Your task to perform on an android device: Open notification settings Image 0: 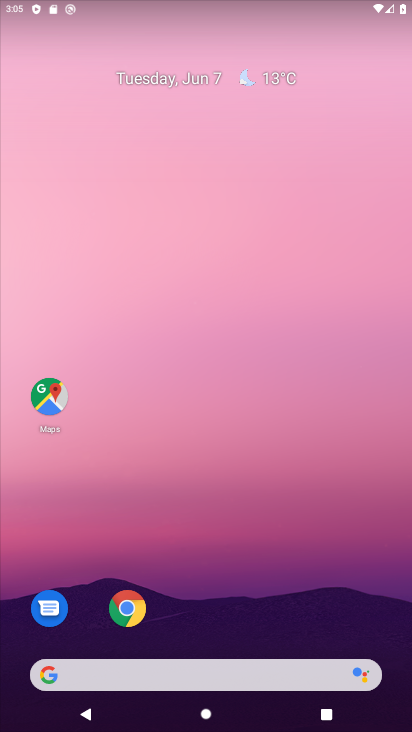
Step 0: drag from (224, 680) to (340, 25)
Your task to perform on an android device: Open notification settings Image 1: 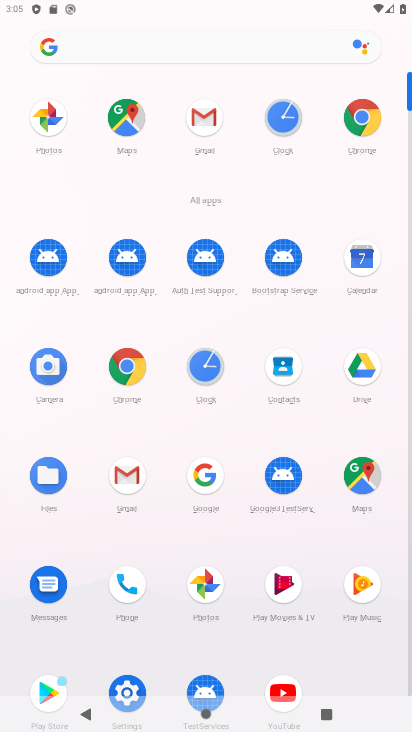
Step 1: drag from (279, 577) to (330, 317)
Your task to perform on an android device: Open notification settings Image 2: 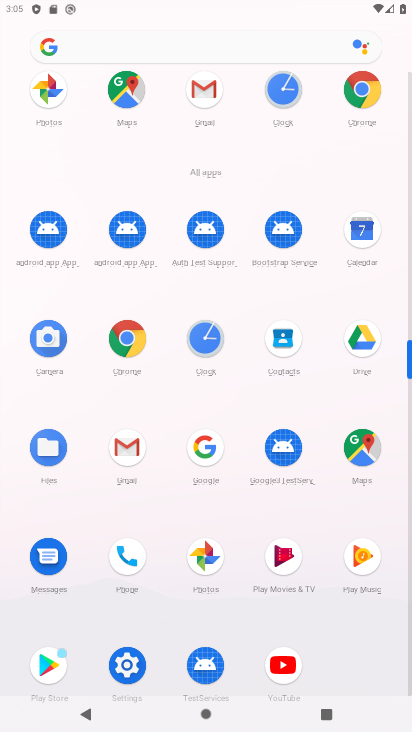
Step 2: click (135, 672)
Your task to perform on an android device: Open notification settings Image 3: 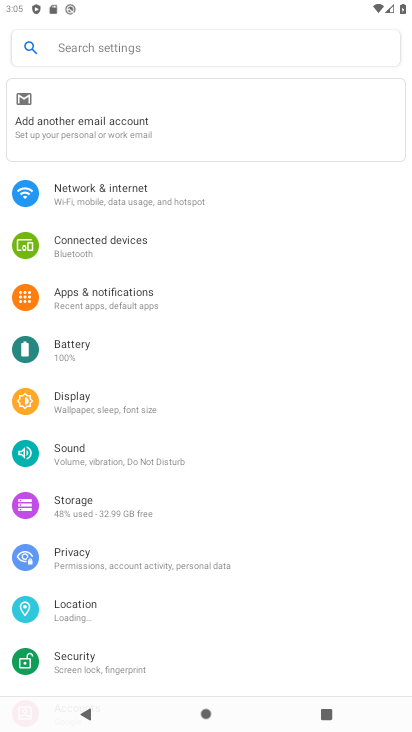
Step 3: click (143, 312)
Your task to perform on an android device: Open notification settings Image 4: 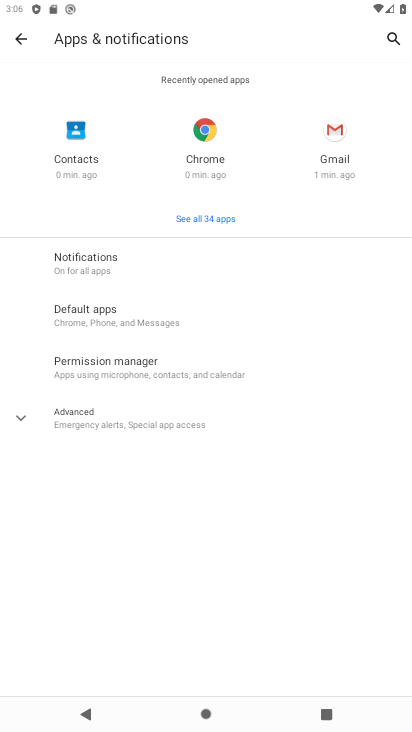
Step 4: click (163, 269)
Your task to perform on an android device: Open notification settings Image 5: 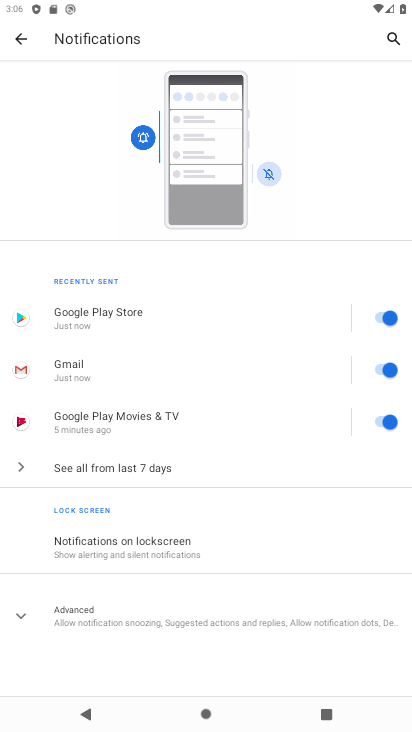
Step 5: task complete